Your task to perform on an android device: snooze an email in the gmail app Image 0: 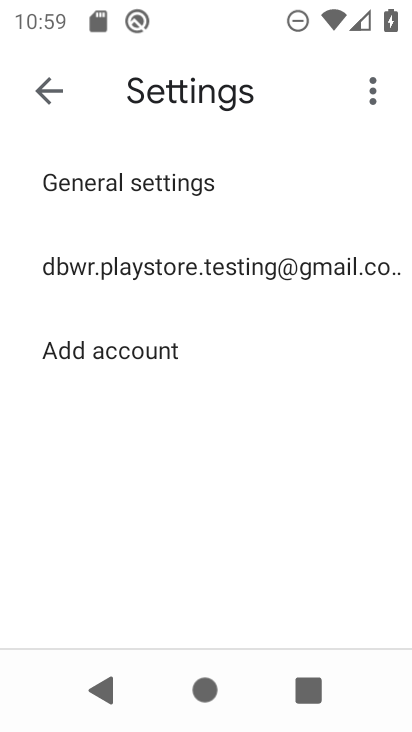
Step 0: click (63, 94)
Your task to perform on an android device: snooze an email in the gmail app Image 1: 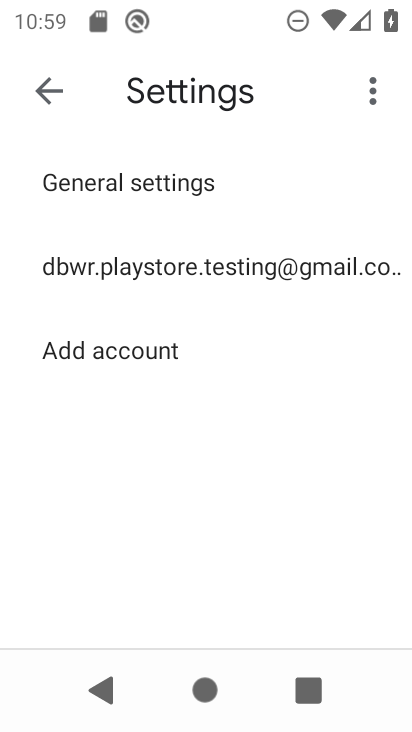
Step 1: click (57, 79)
Your task to perform on an android device: snooze an email in the gmail app Image 2: 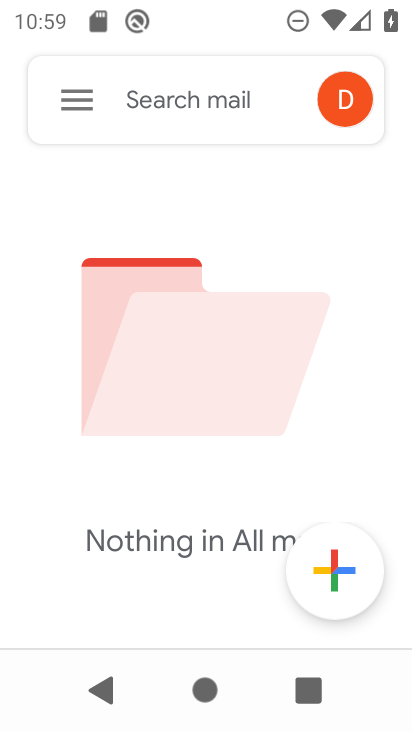
Step 2: task complete